Your task to perform on an android device: Go to location settings Image 0: 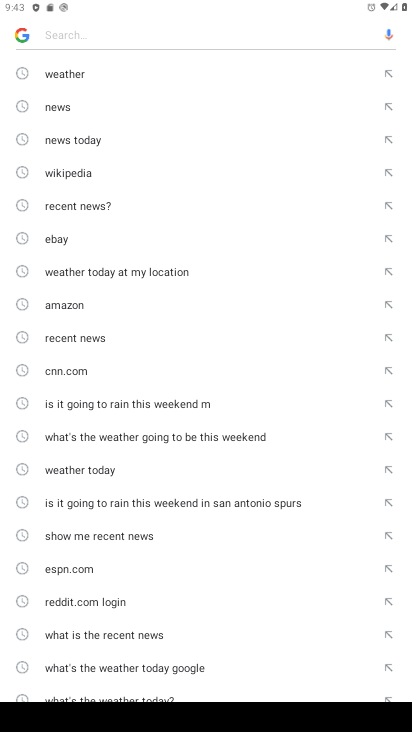
Step 0: press home button
Your task to perform on an android device: Go to location settings Image 1: 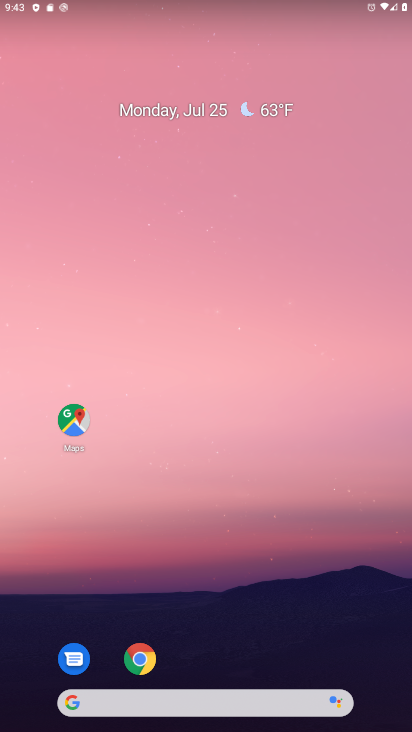
Step 1: drag from (203, 683) to (232, 51)
Your task to perform on an android device: Go to location settings Image 2: 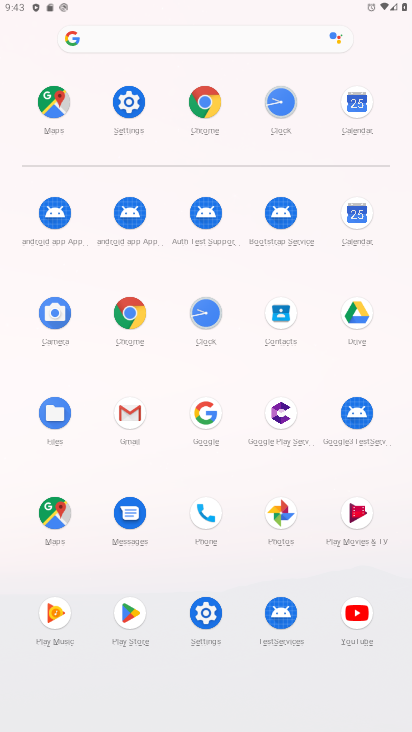
Step 2: click (123, 100)
Your task to perform on an android device: Go to location settings Image 3: 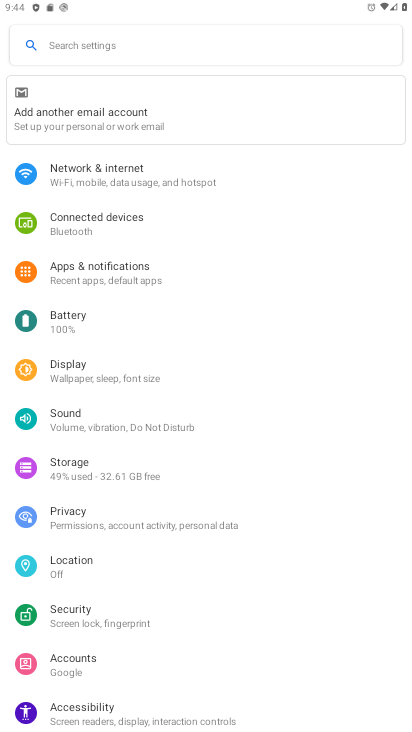
Step 3: click (65, 559)
Your task to perform on an android device: Go to location settings Image 4: 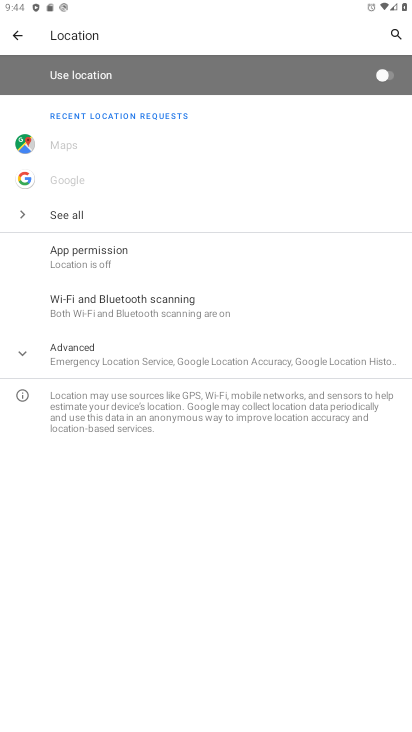
Step 4: task complete